Your task to perform on an android device: Turn off the flashlight Image 0: 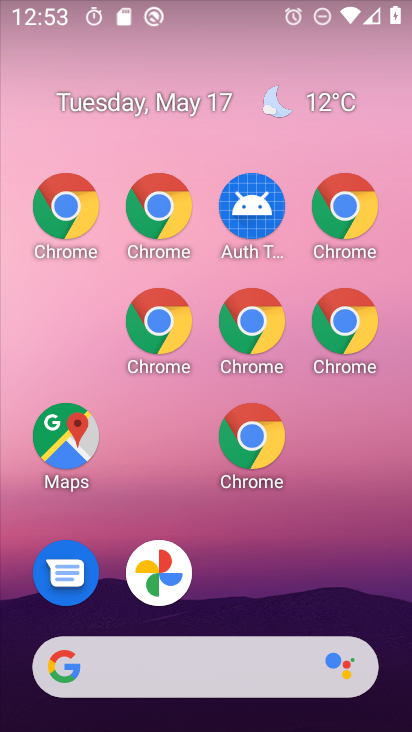
Step 0: drag from (256, 685) to (158, 108)
Your task to perform on an android device: Turn off the flashlight Image 1: 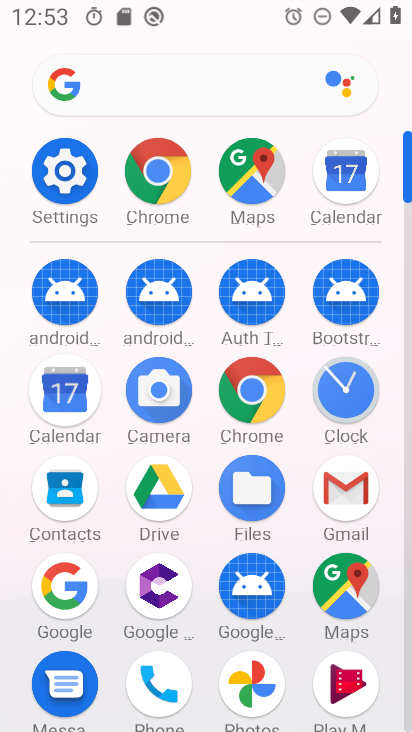
Step 1: task complete